Your task to perform on an android device: Open calendar and show me the third week of next month Image 0: 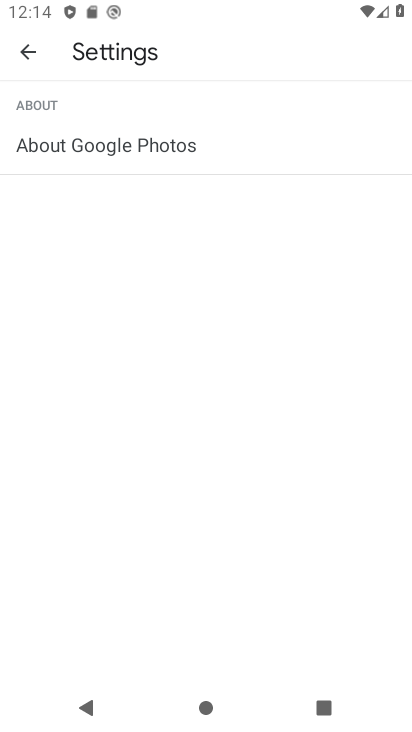
Step 0: press home button
Your task to perform on an android device: Open calendar and show me the third week of next month Image 1: 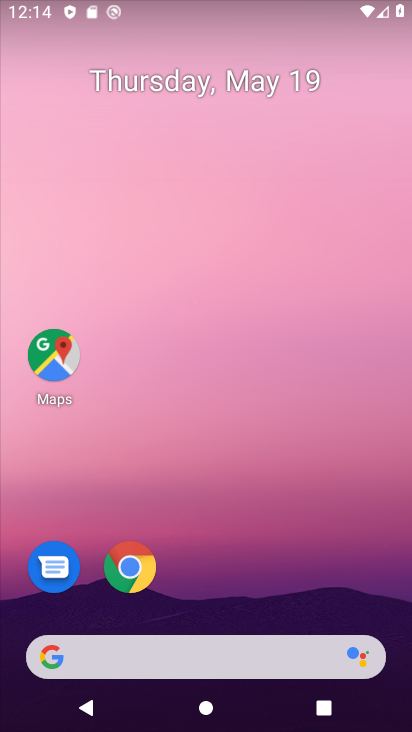
Step 1: drag from (296, 542) to (271, 47)
Your task to perform on an android device: Open calendar and show me the third week of next month Image 2: 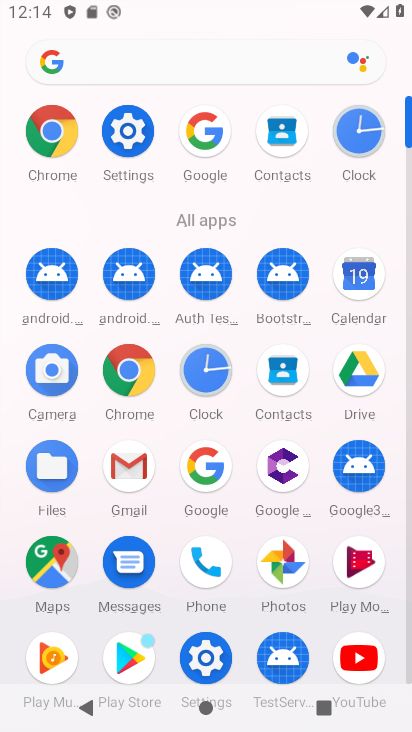
Step 2: click (356, 268)
Your task to perform on an android device: Open calendar and show me the third week of next month Image 3: 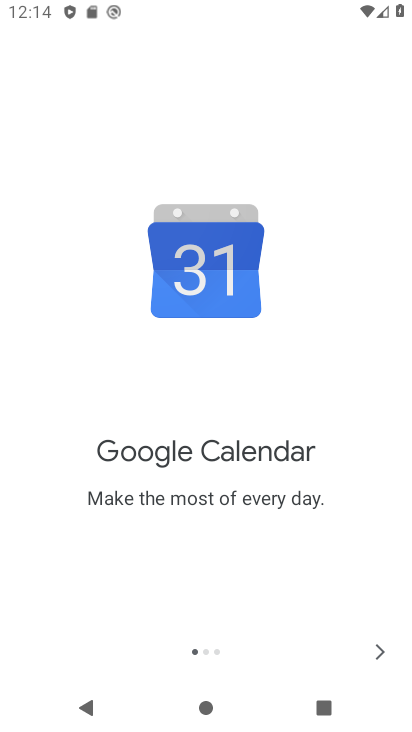
Step 3: click (378, 651)
Your task to perform on an android device: Open calendar and show me the third week of next month Image 4: 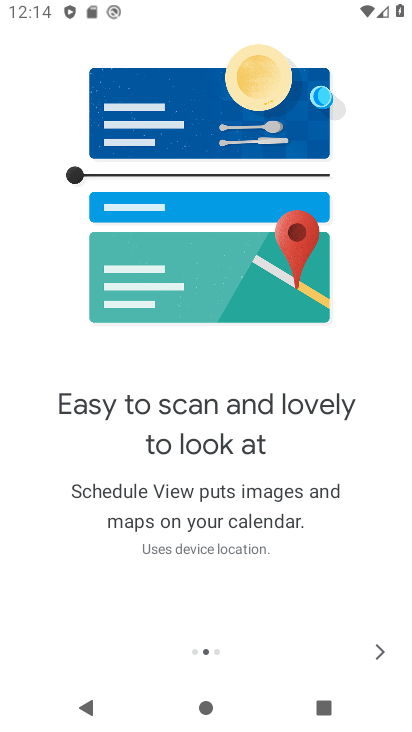
Step 4: click (378, 650)
Your task to perform on an android device: Open calendar and show me the third week of next month Image 5: 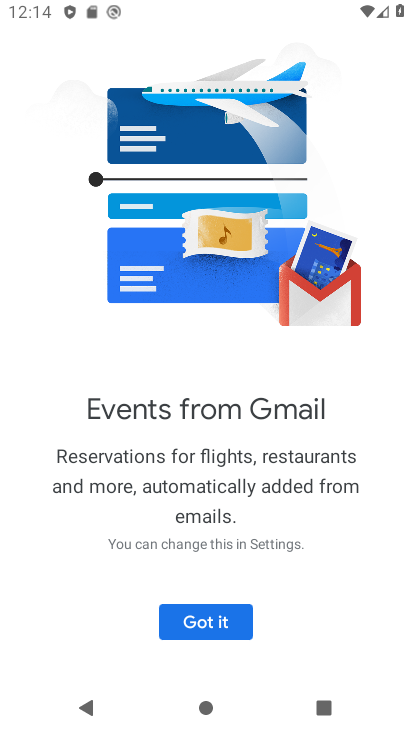
Step 5: click (236, 615)
Your task to perform on an android device: Open calendar and show me the third week of next month Image 6: 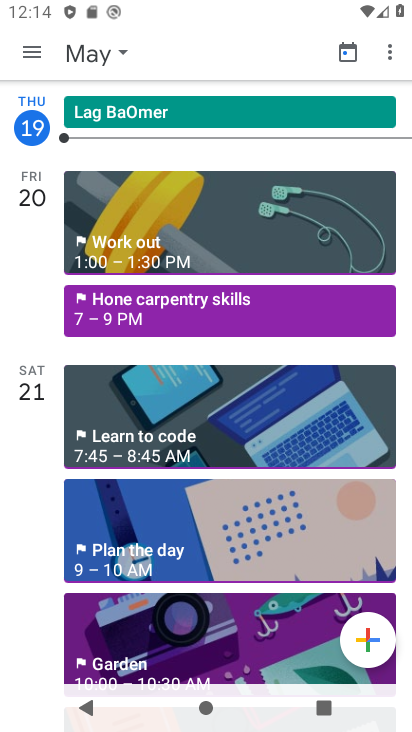
Step 6: click (39, 56)
Your task to perform on an android device: Open calendar and show me the third week of next month Image 7: 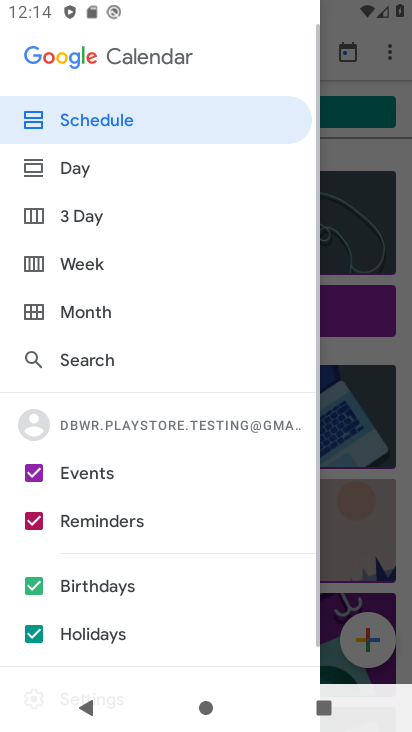
Step 7: click (55, 313)
Your task to perform on an android device: Open calendar and show me the third week of next month Image 8: 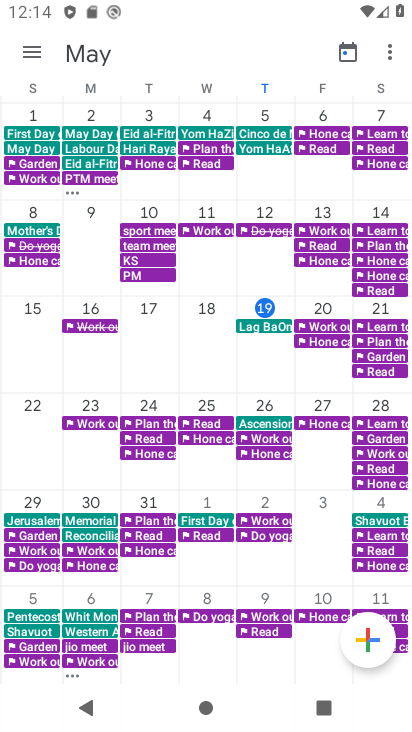
Step 8: drag from (360, 389) to (7, 305)
Your task to perform on an android device: Open calendar and show me the third week of next month Image 9: 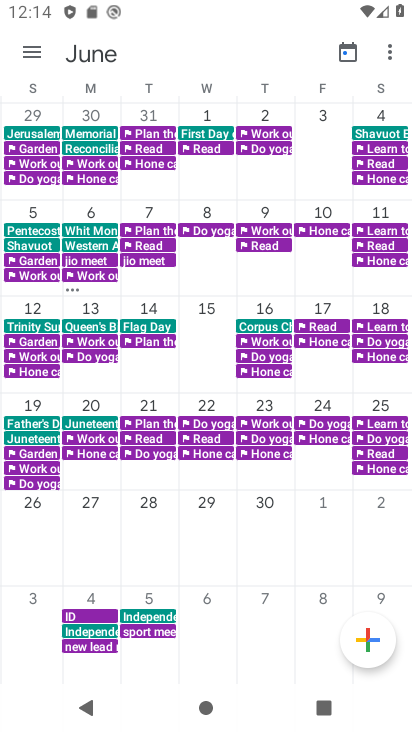
Step 9: click (38, 403)
Your task to perform on an android device: Open calendar and show me the third week of next month Image 10: 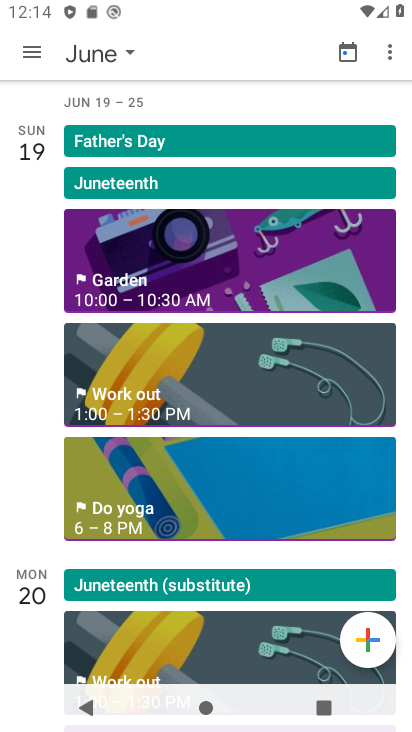
Step 10: click (21, 51)
Your task to perform on an android device: Open calendar and show me the third week of next month Image 11: 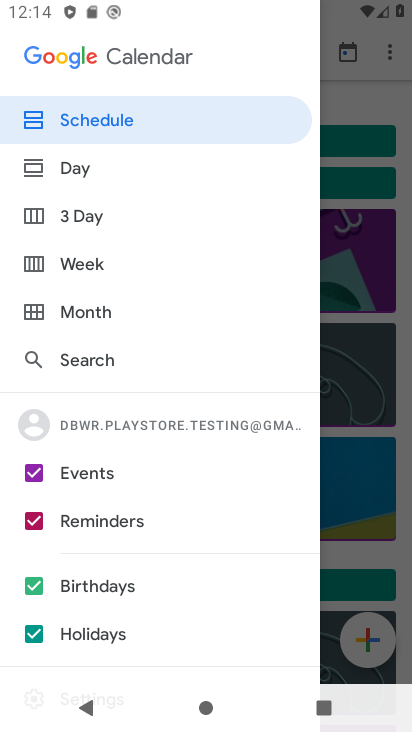
Step 11: click (69, 254)
Your task to perform on an android device: Open calendar and show me the third week of next month Image 12: 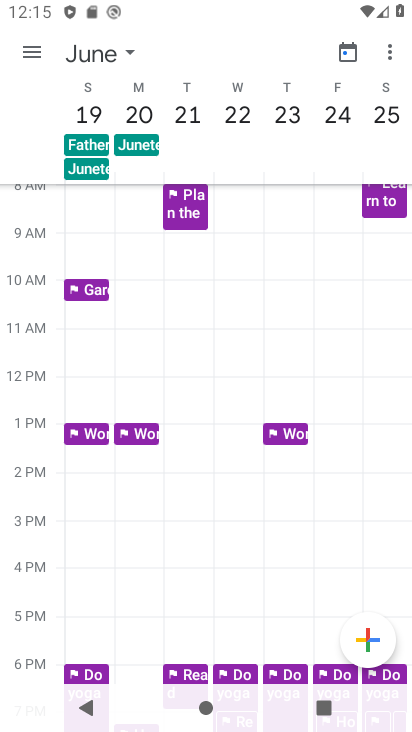
Step 12: task complete